Your task to perform on an android device: turn on the 24-hour format for clock Image 0: 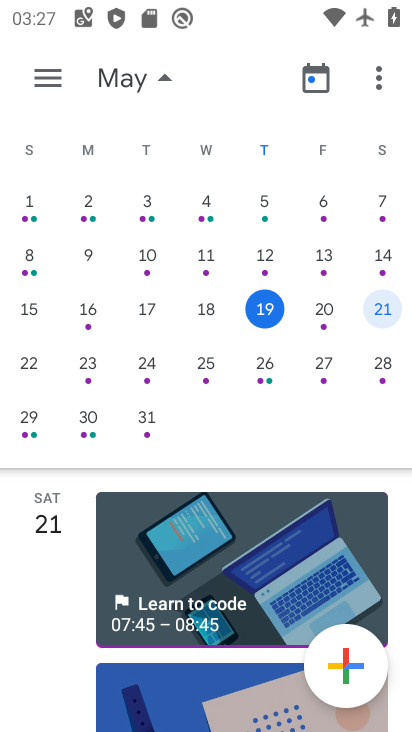
Step 0: press home button
Your task to perform on an android device: turn on the 24-hour format for clock Image 1: 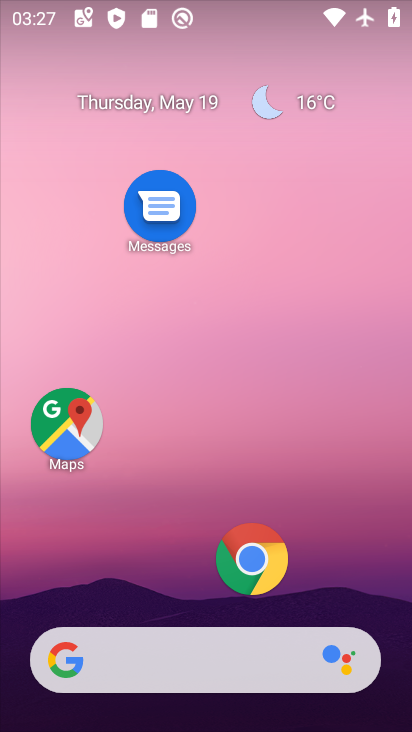
Step 1: drag from (179, 607) to (203, 269)
Your task to perform on an android device: turn on the 24-hour format for clock Image 2: 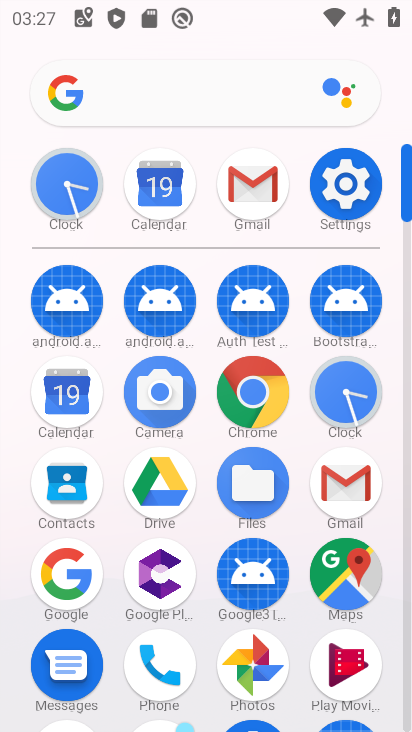
Step 2: click (322, 399)
Your task to perform on an android device: turn on the 24-hour format for clock Image 3: 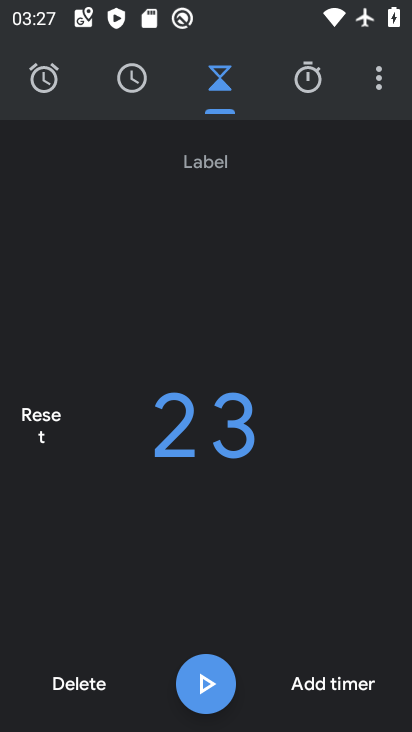
Step 3: click (377, 81)
Your task to perform on an android device: turn on the 24-hour format for clock Image 4: 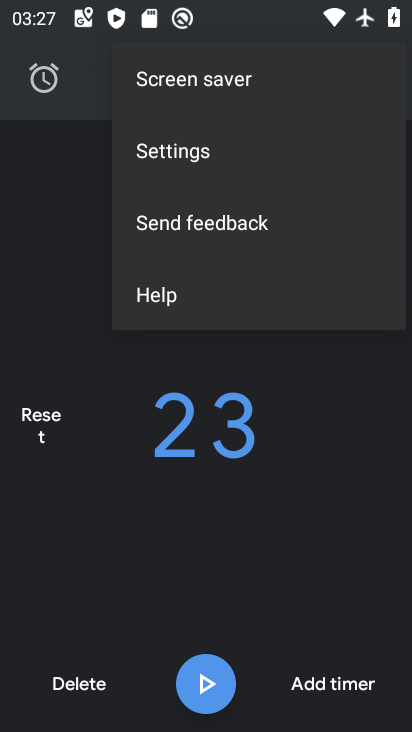
Step 4: click (231, 154)
Your task to perform on an android device: turn on the 24-hour format for clock Image 5: 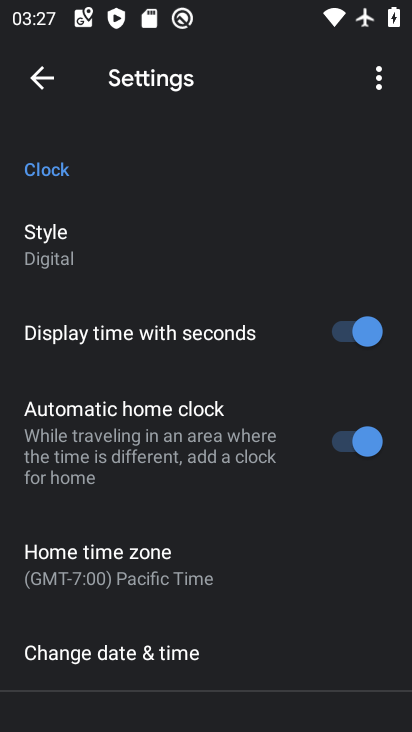
Step 5: click (198, 659)
Your task to perform on an android device: turn on the 24-hour format for clock Image 6: 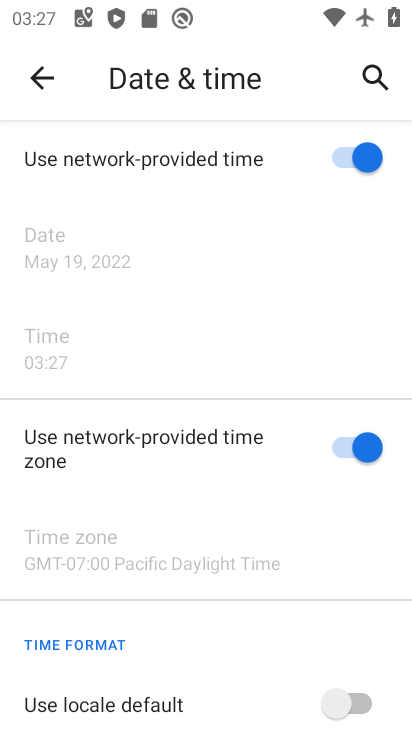
Step 6: task complete